Your task to perform on an android device: Open Reddit.com Image 0: 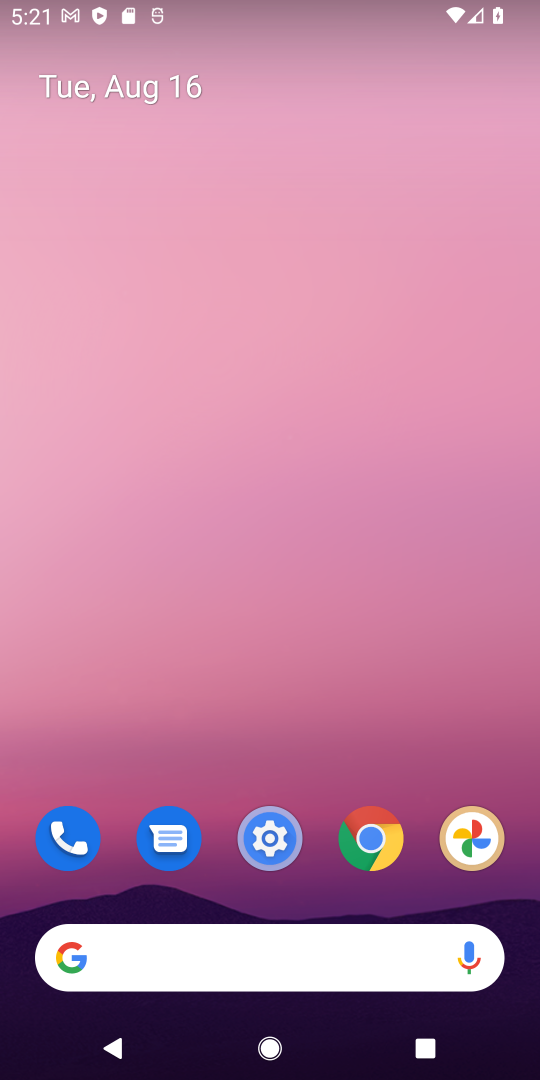
Step 0: click (370, 846)
Your task to perform on an android device: Open Reddit.com Image 1: 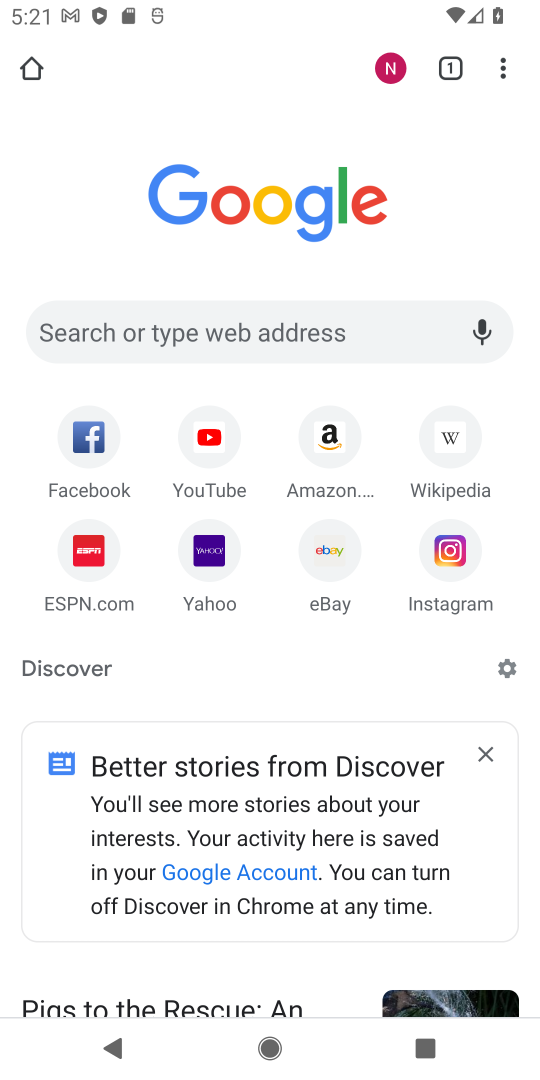
Step 1: click (212, 320)
Your task to perform on an android device: Open Reddit.com Image 2: 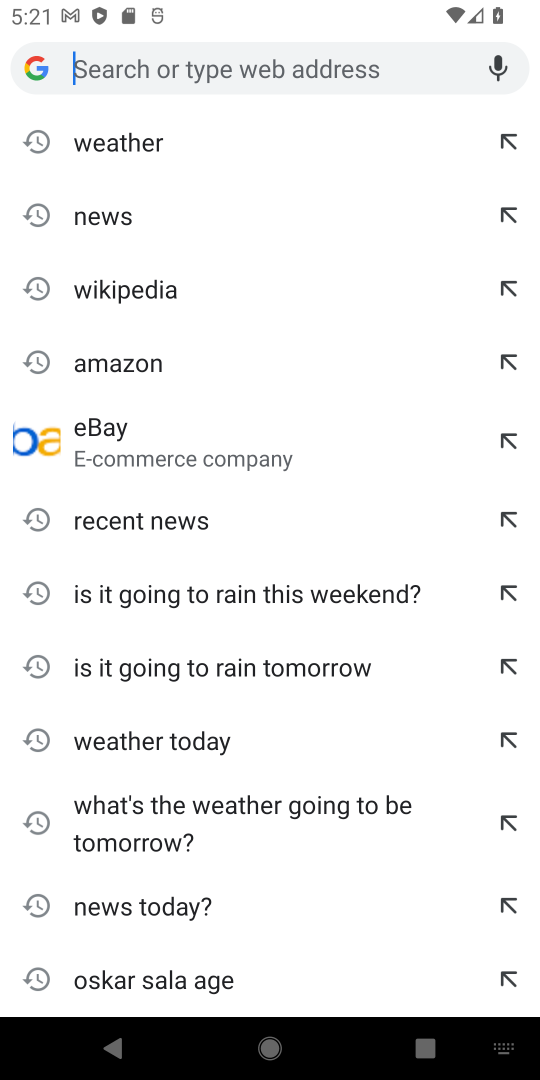
Step 2: type "reddit.com"
Your task to perform on an android device: Open Reddit.com Image 3: 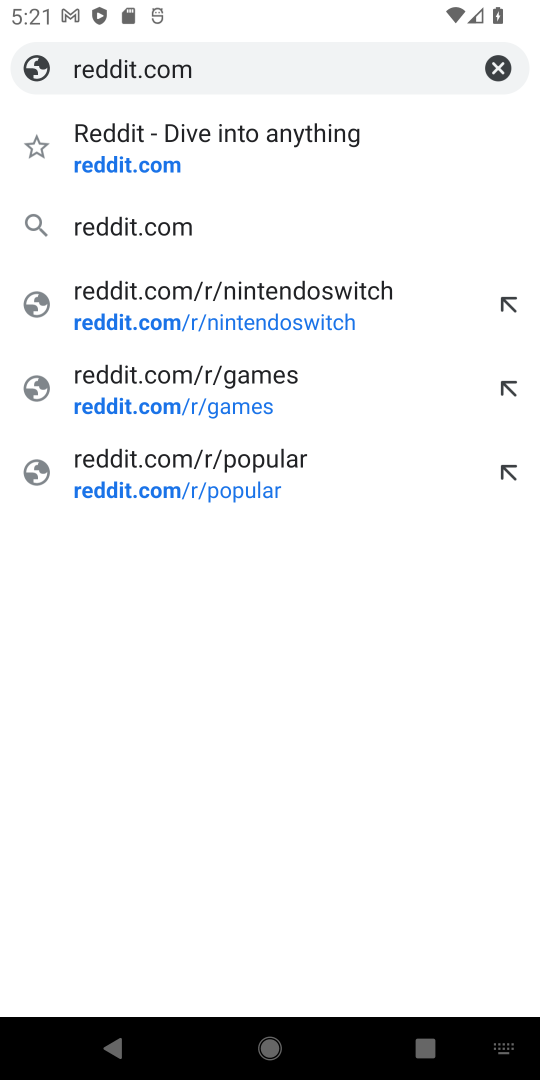
Step 3: click (239, 154)
Your task to perform on an android device: Open Reddit.com Image 4: 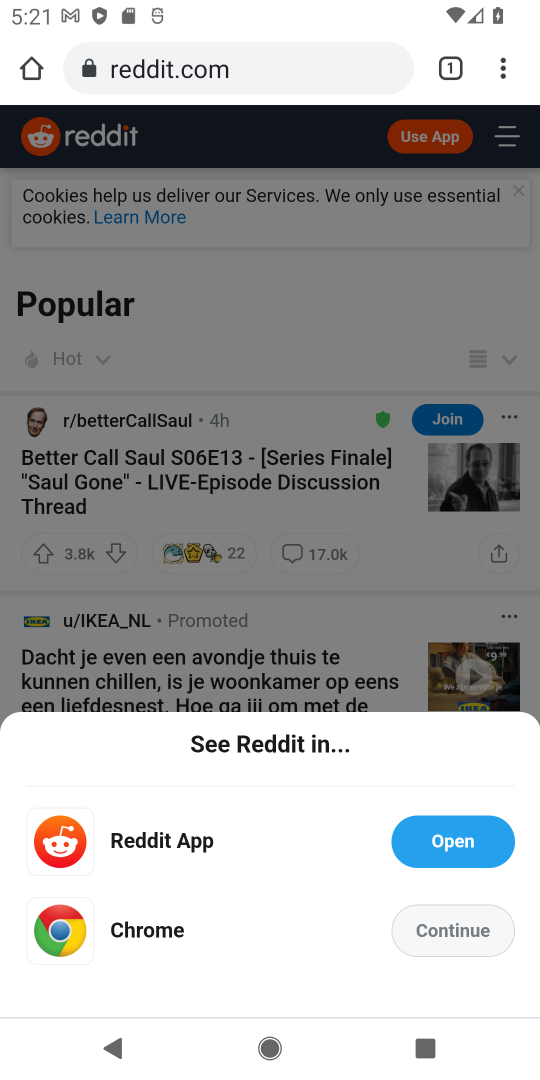
Step 4: task complete